Your task to perform on an android device: change the clock style Image 0: 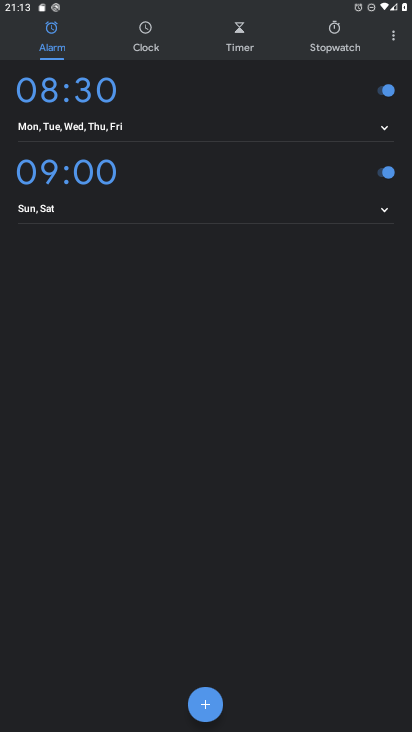
Step 0: press home button
Your task to perform on an android device: change the clock style Image 1: 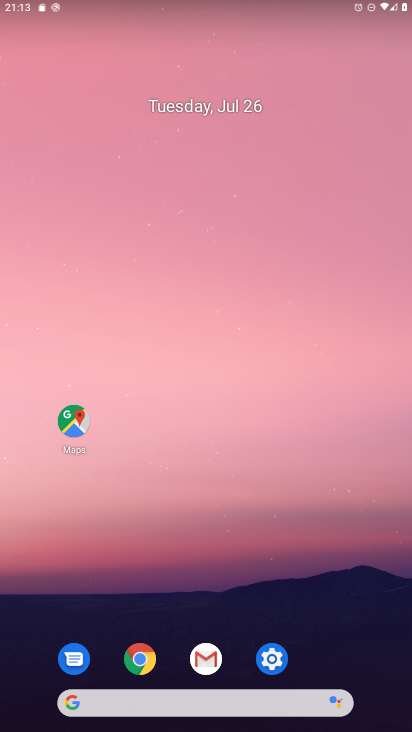
Step 1: drag from (219, 718) to (131, 185)
Your task to perform on an android device: change the clock style Image 2: 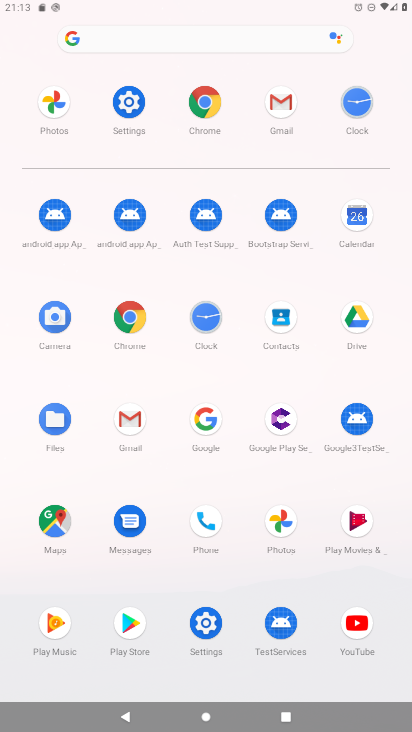
Step 2: click (217, 311)
Your task to perform on an android device: change the clock style Image 3: 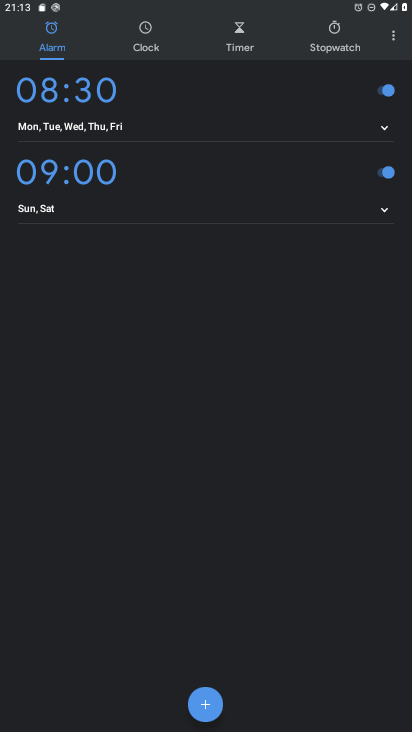
Step 3: click (387, 34)
Your task to perform on an android device: change the clock style Image 4: 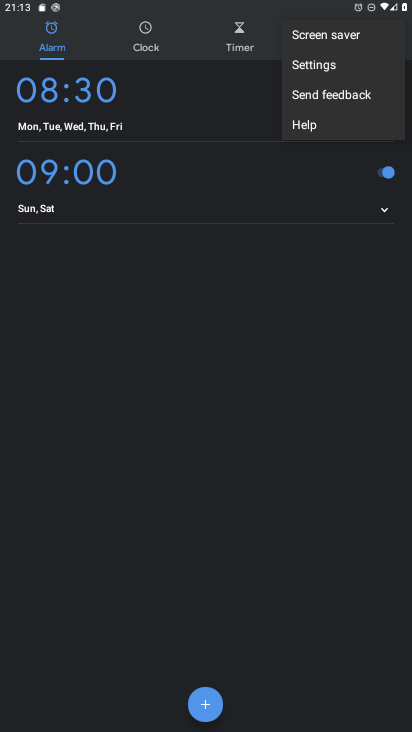
Step 4: click (329, 74)
Your task to perform on an android device: change the clock style Image 5: 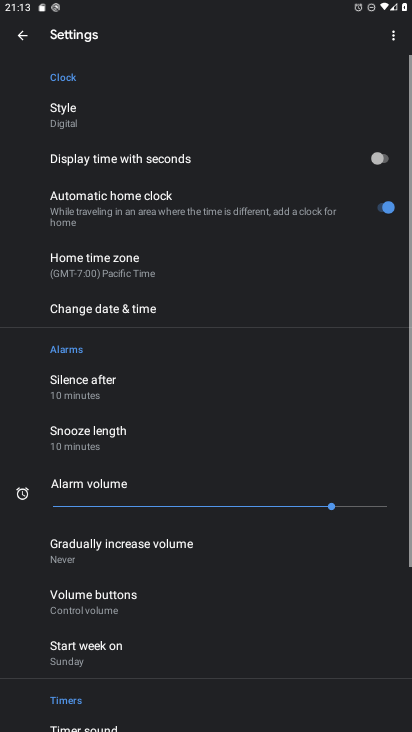
Step 5: click (146, 111)
Your task to perform on an android device: change the clock style Image 6: 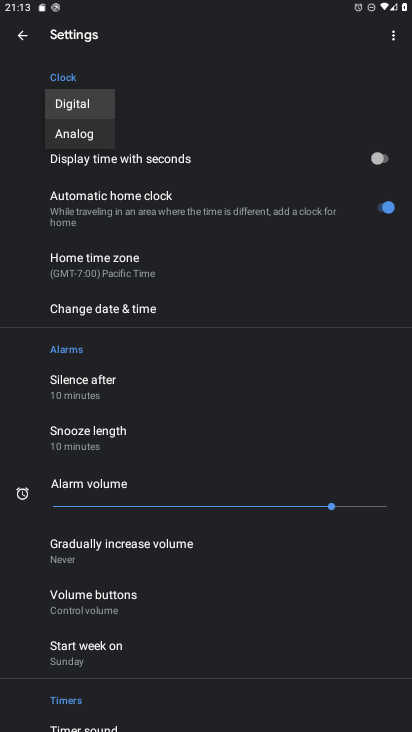
Step 6: click (79, 133)
Your task to perform on an android device: change the clock style Image 7: 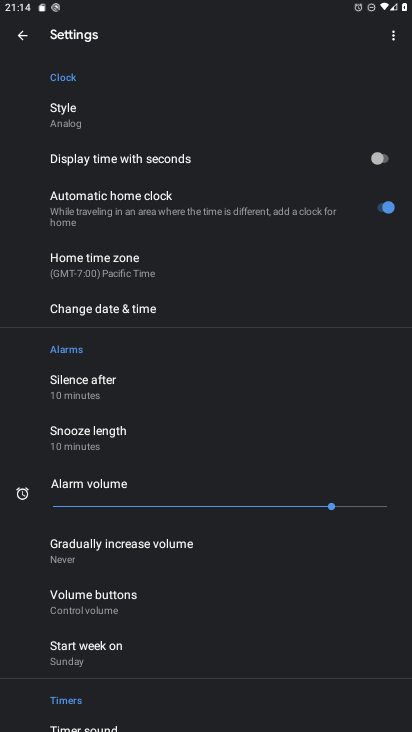
Step 7: task complete